Your task to perform on an android device: toggle location history Image 0: 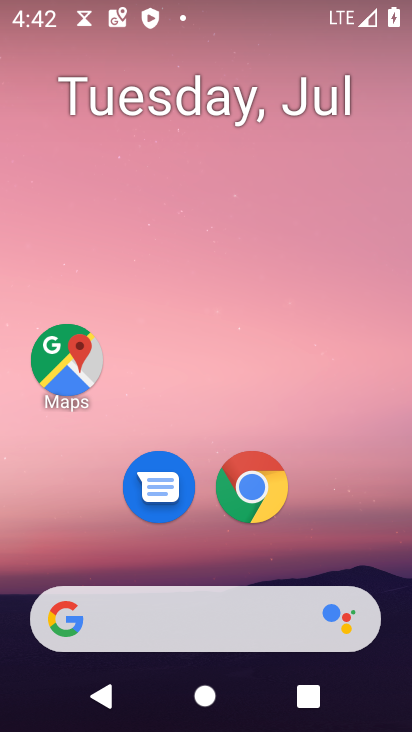
Step 0: drag from (182, 516) to (218, 28)
Your task to perform on an android device: toggle location history Image 1: 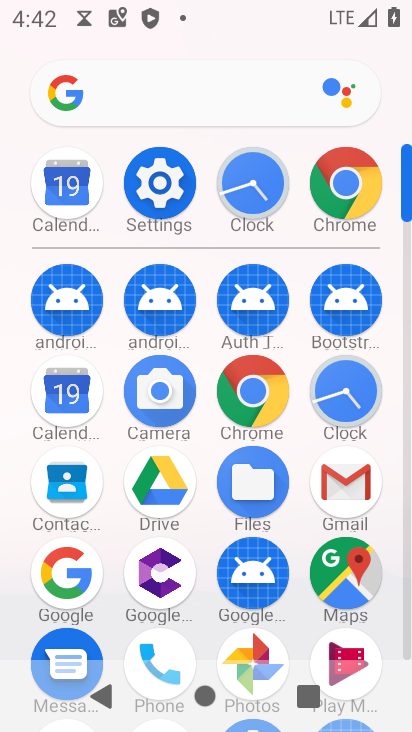
Step 1: click (169, 165)
Your task to perform on an android device: toggle location history Image 2: 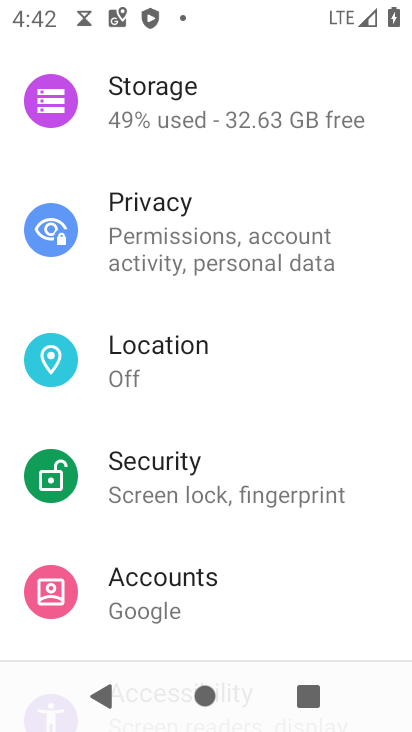
Step 2: click (171, 359)
Your task to perform on an android device: toggle location history Image 3: 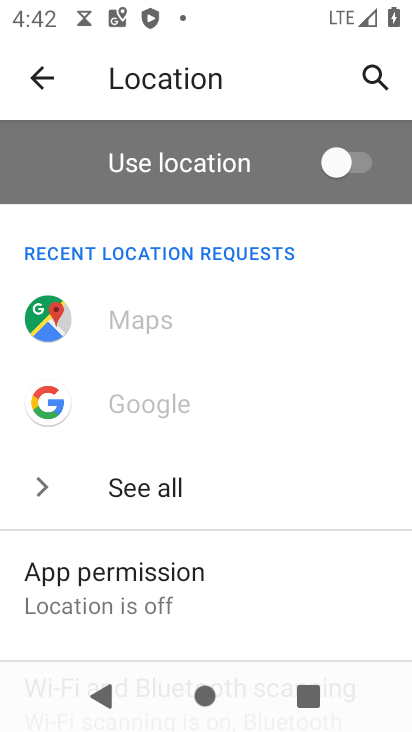
Step 3: drag from (186, 572) to (311, 50)
Your task to perform on an android device: toggle location history Image 4: 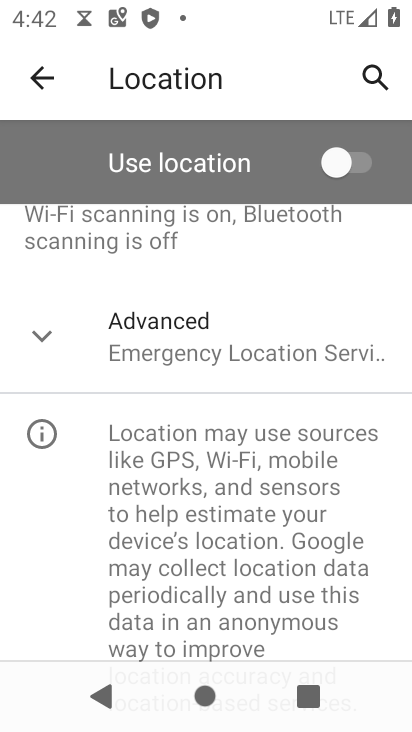
Step 4: click (211, 348)
Your task to perform on an android device: toggle location history Image 5: 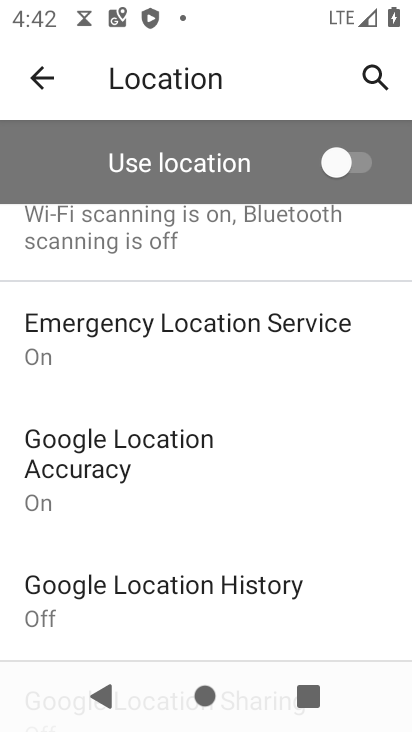
Step 5: click (197, 581)
Your task to perform on an android device: toggle location history Image 6: 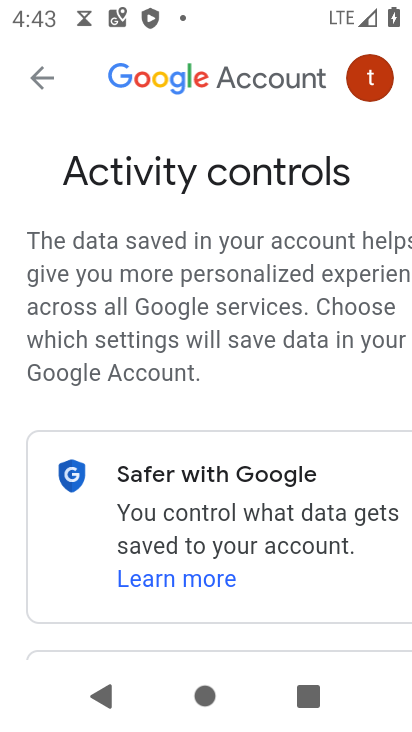
Step 6: drag from (199, 575) to (303, 2)
Your task to perform on an android device: toggle location history Image 7: 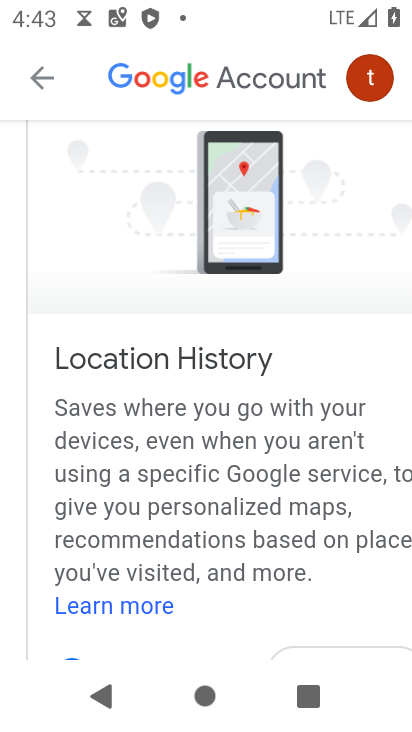
Step 7: drag from (203, 630) to (306, 4)
Your task to perform on an android device: toggle location history Image 8: 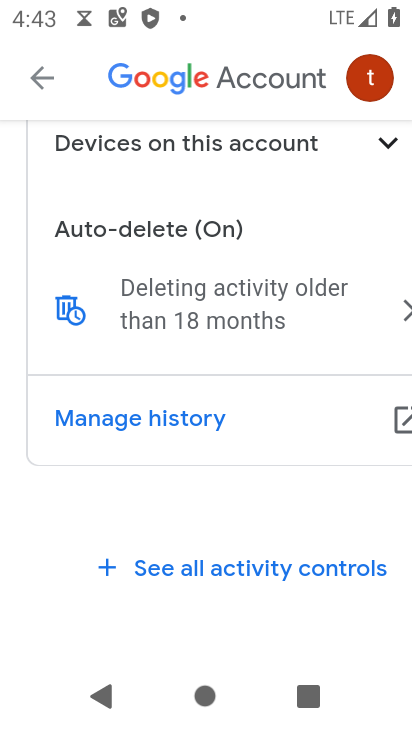
Step 8: drag from (324, 368) to (308, 610)
Your task to perform on an android device: toggle location history Image 9: 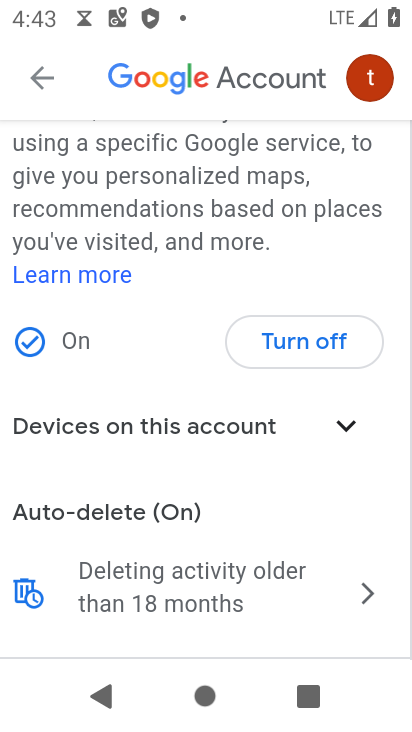
Step 9: click (307, 338)
Your task to perform on an android device: toggle location history Image 10: 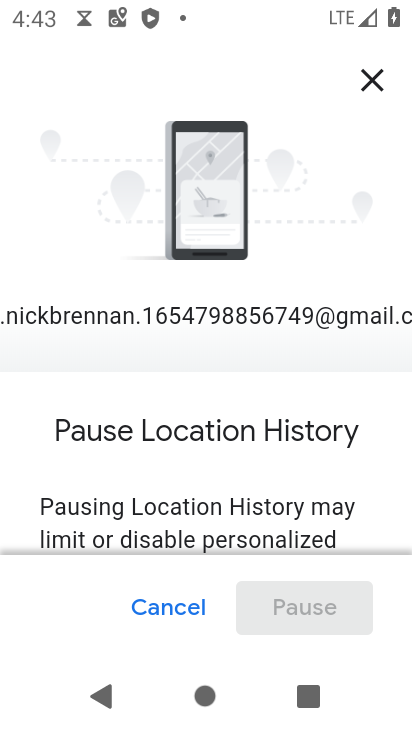
Step 10: drag from (199, 493) to (283, 27)
Your task to perform on an android device: toggle location history Image 11: 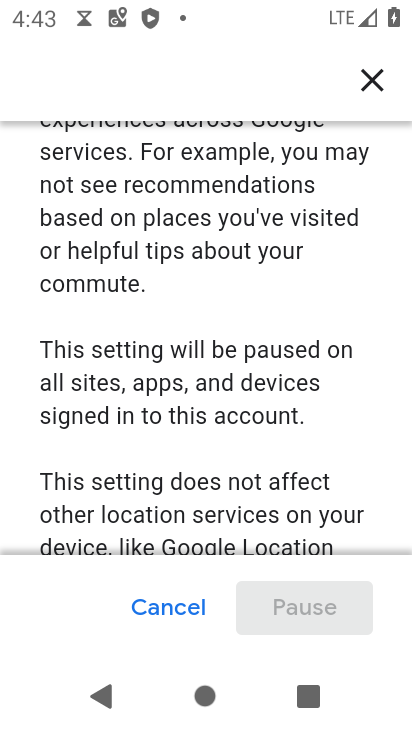
Step 11: drag from (258, 504) to (256, 7)
Your task to perform on an android device: toggle location history Image 12: 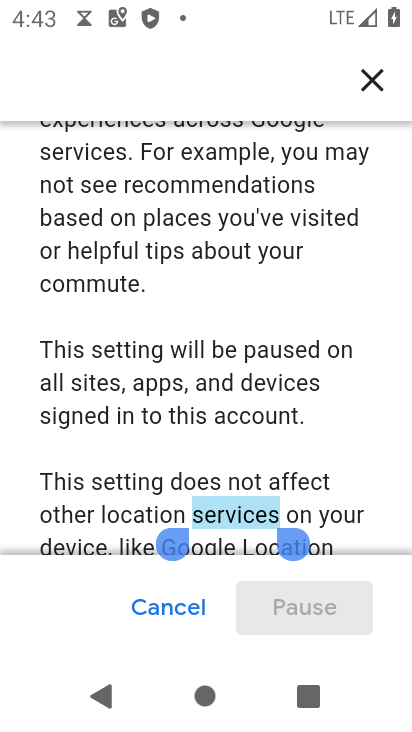
Step 12: drag from (214, 504) to (259, 73)
Your task to perform on an android device: toggle location history Image 13: 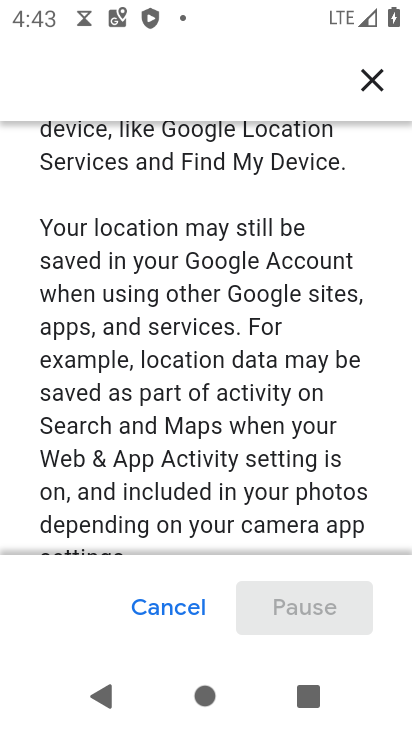
Step 13: drag from (204, 507) to (308, 16)
Your task to perform on an android device: toggle location history Image 14: 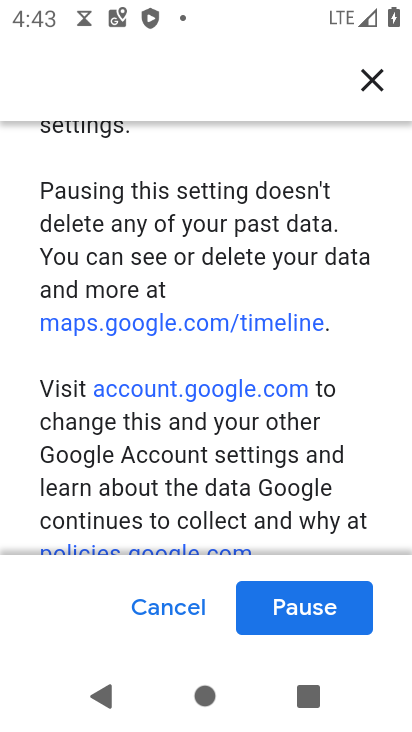
Step 14: click (293, 608)
Your task to perform on an android device: toggle location history Image 15: 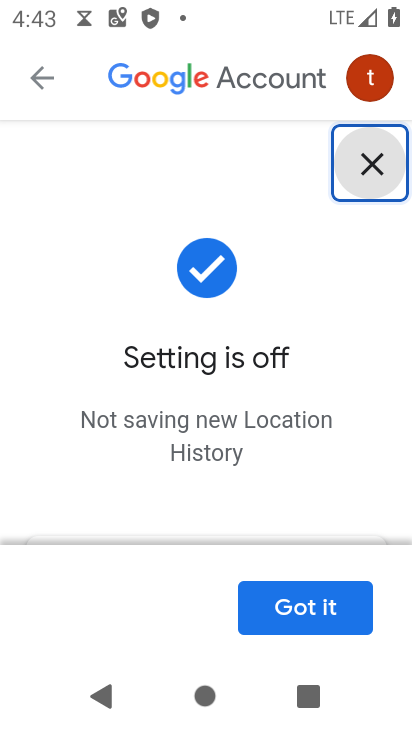
Step 15: click (306, 613)
Your task to perform on an android device: toggle location history Image 16: 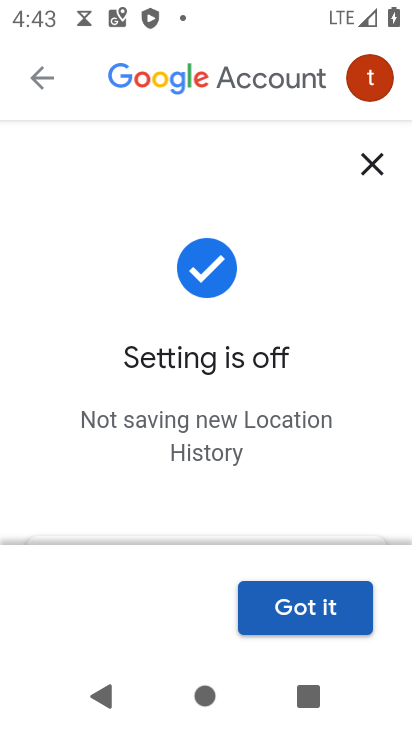
Step 16: task complete